Your task to perform on an android device: Go to network settings Image 0: 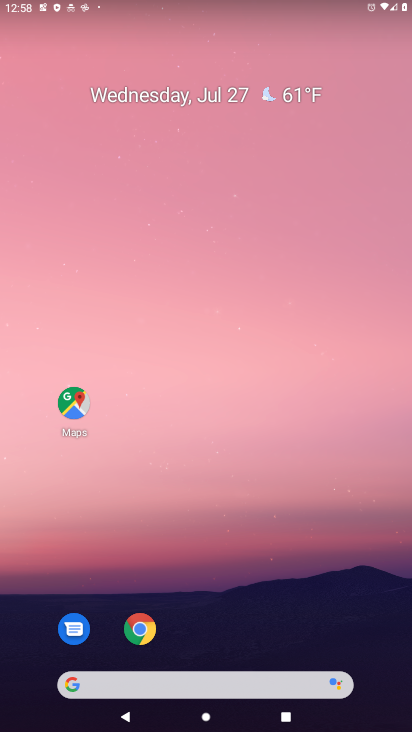
Step 0: drag from (347, 631) to (253, 4)
Your task to perform on an android device: Go to network settings Image 1: 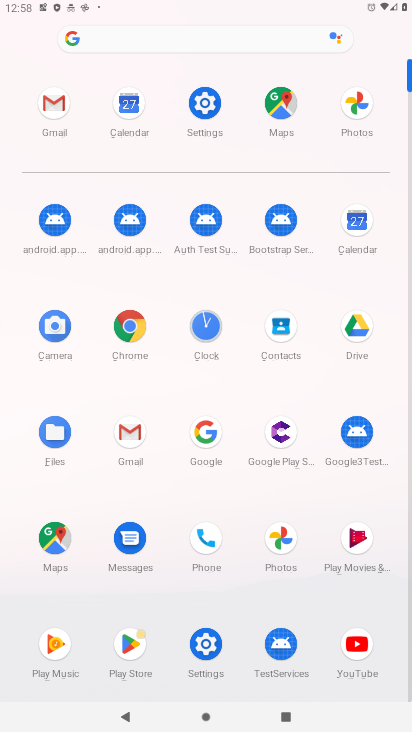
Step 1: click (199, 115)
Your task to perform on an android device: Go to network settings Image 2: 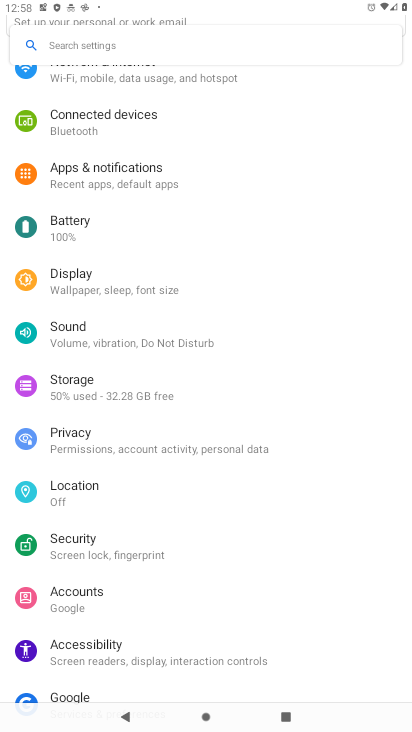
Step 2: click (153, 80)
Your task to perform on an android device: Go to network settings Image 3: 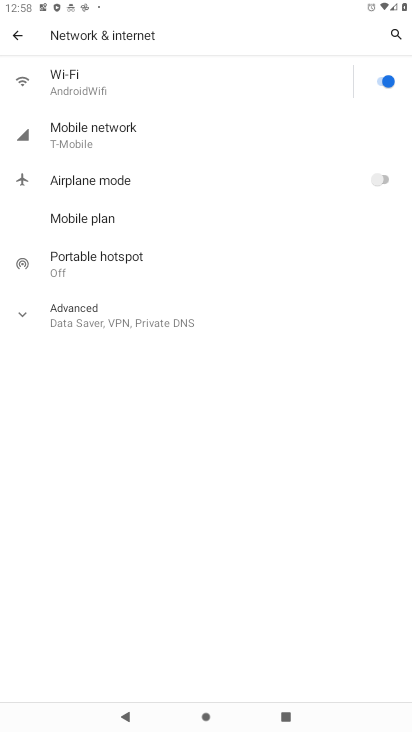
Step 3: task complete